Your task to perform on an android device: Open Chrome and go to settings Image 0: 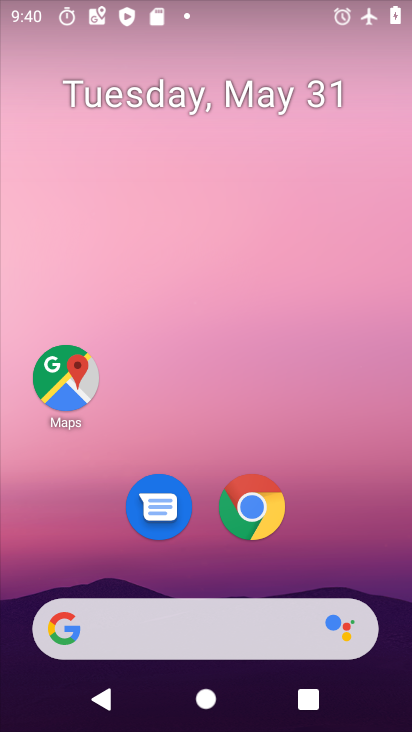
Step 0: click (259, 511)
Your task to perform on an android device: Open Chrome and go to settings Image 1: 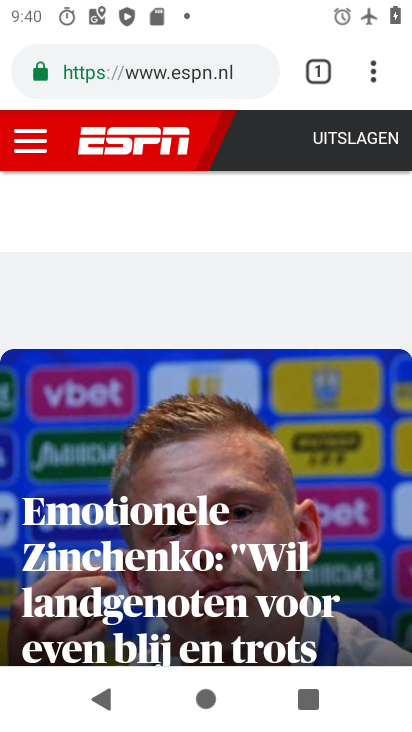
Step 1: click (372, 72)
Your task to perform on an android device: Open Chrome and go to settings Image 2: 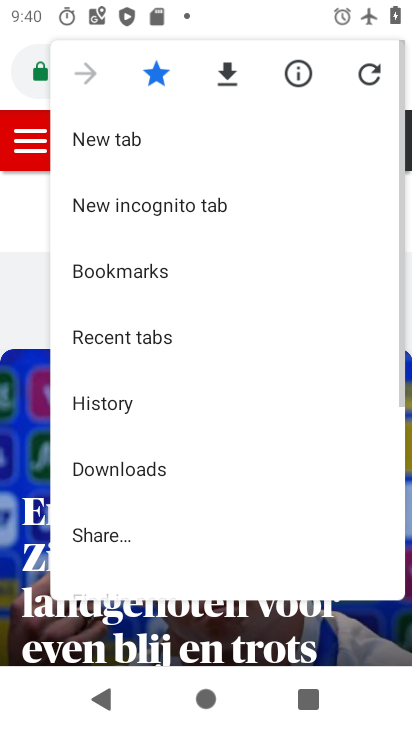
Step 2: drag from (199, 493) to (197, 110)
Your task to perform on an android device: Open Chrome and go to settings Image 3: 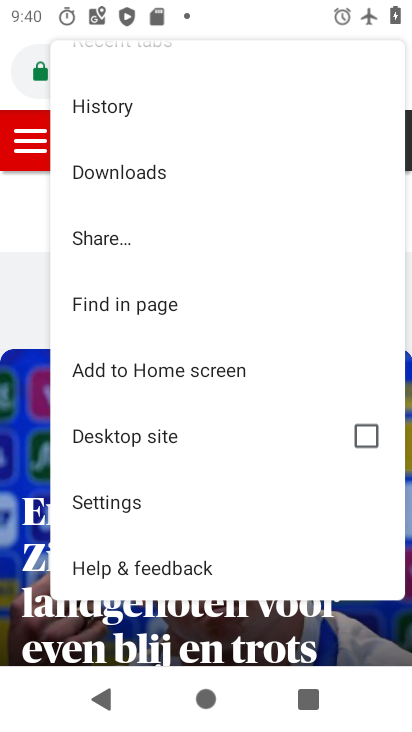
Step 3: click (138, 508)
Your task to perform on an android device: Open Chrome and go to settings Image 4: 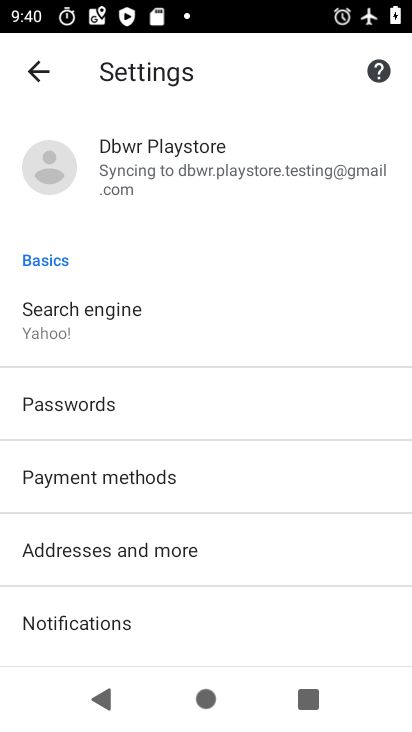
Step 4: task complete